Your task to perform on an android device: Open Youtube and go to "Your channel" Image 0: 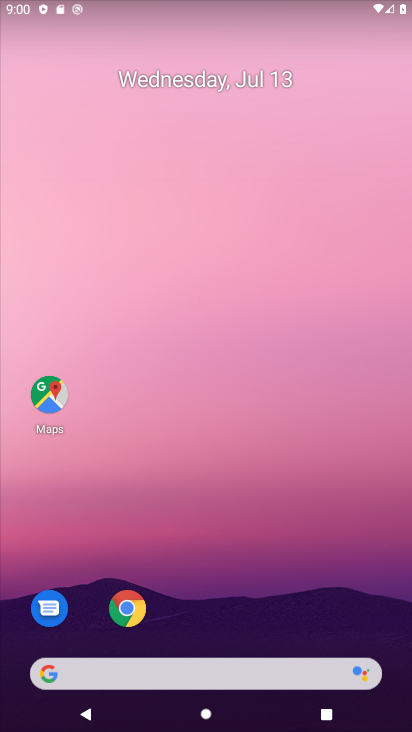
Step 0: drag from (243, 576) to (187, 154)
Your task to perform on an android device: Open Youtube and go to "Your channel" Image 1: 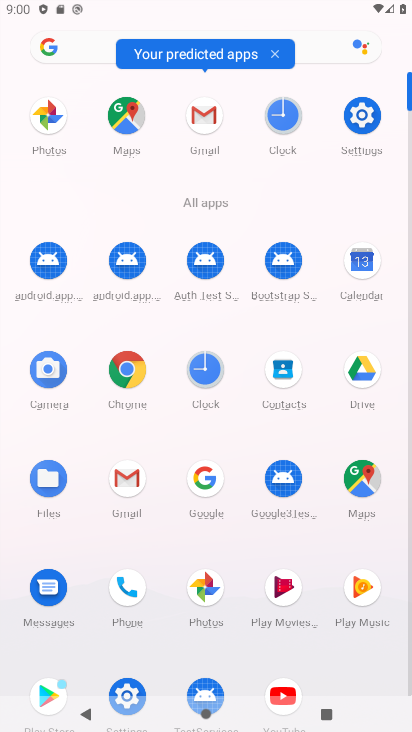
Step 1: click (281, 686)
Your task to perform on an android device: Open Youtube and go to "Your channel" Image 2: 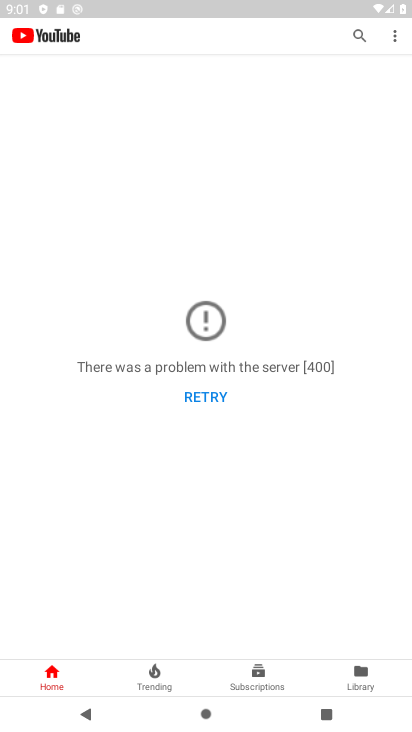
Step 2: click (400, 34)
Your task to perform on an android device: Open Youtube and go to "Your channel" Image 3: 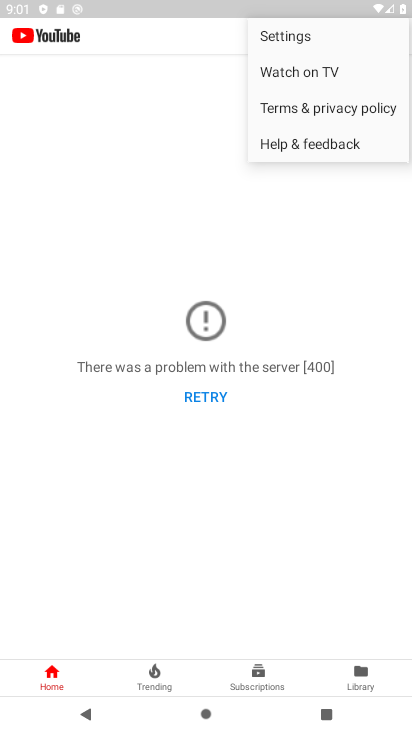
Step 3: click (299, 29)
Your task to perform on an android device: Open Youtube and go to "Your channel" Image 4: 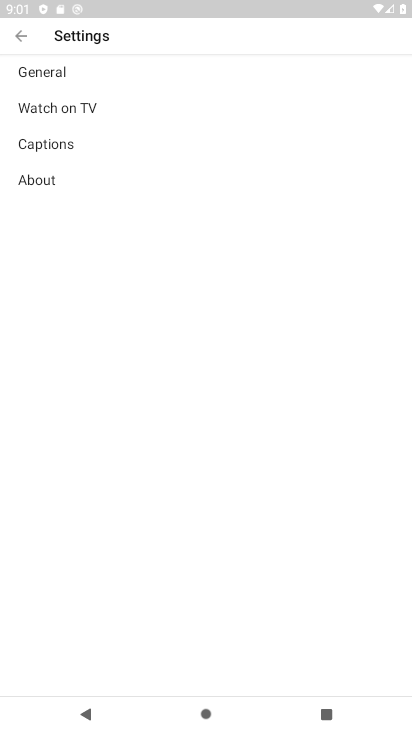
Step 4: click (15, 29)
Your task to perform on an android device: Open Youtube and go to "Your channel" Image 5: 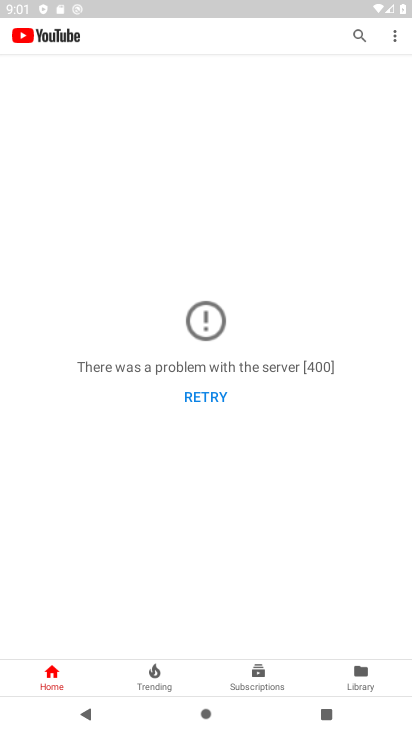
Step 5: click (359, 675)
Your task to perform on an android device: Open Youtube and go to "Your channel" Image 6: 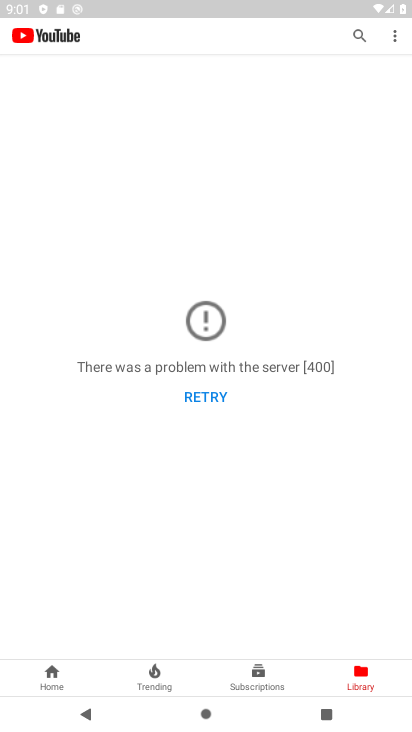
Step 6: task complete